Your task to perform on an android device: stop showing notifications on the lock screen Image 0: 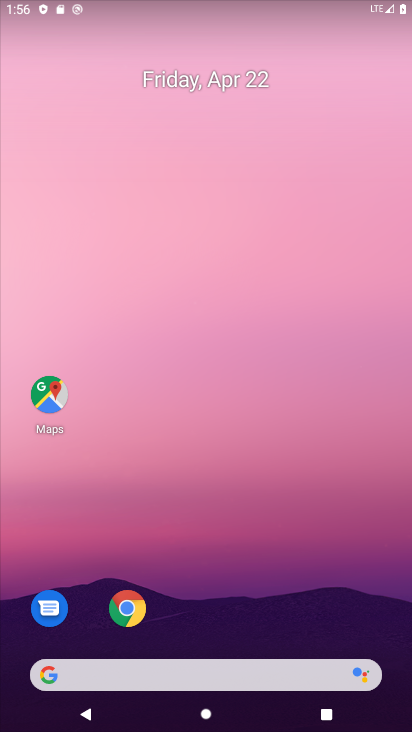
Step 0: drag from (259, 690) to (222, 159)
Your task to perform on an android device: stop showing notifications on the lock screen Image 1: 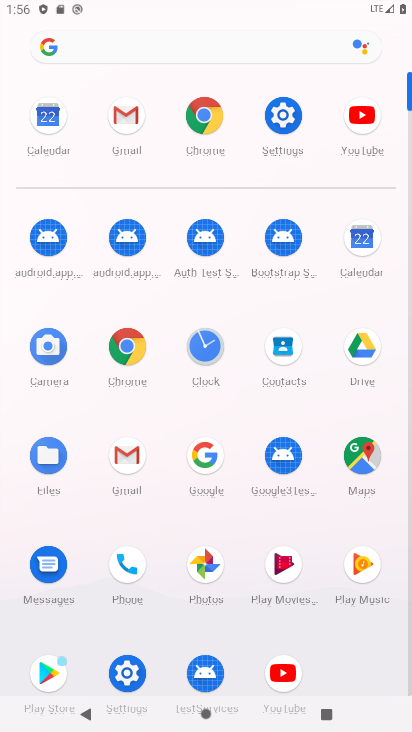
Step 1: click (283, 126)
Your task to perform on an android device: stop showing notifications on the lock screen Image 2: 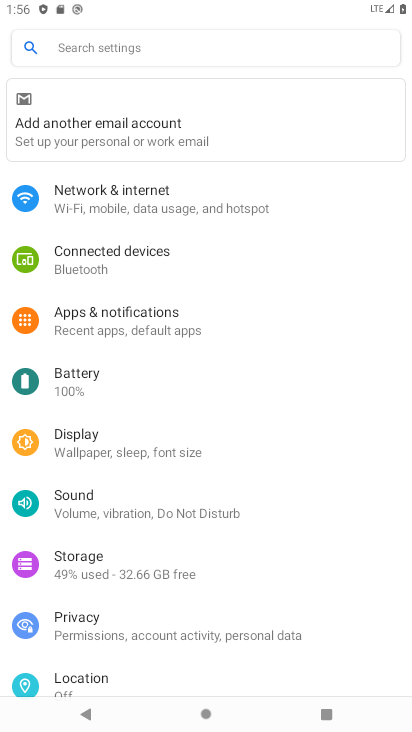
Step 2: click (190, 61)
Your task to perform on an android device: stop showing notifications on the lock screen Image 3: 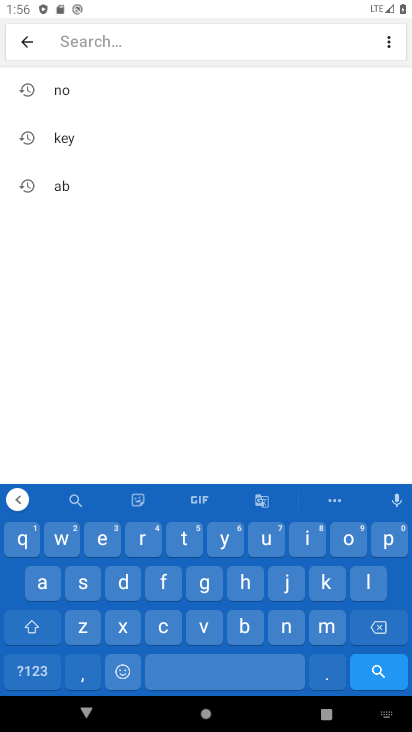
Step 3: click (97, 102)
Your task to perform on an android device: stop showing notifications on the lock screen Image 4: 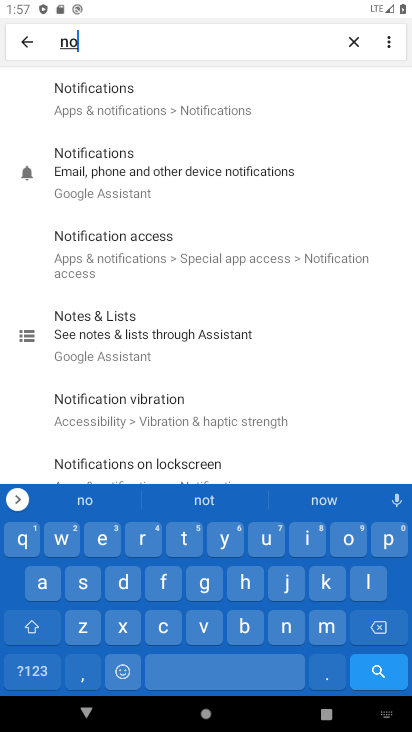
Step 4: click (97, 102)
Your task to perform on an android device: stop showing notifications on the lock screen Image 5: 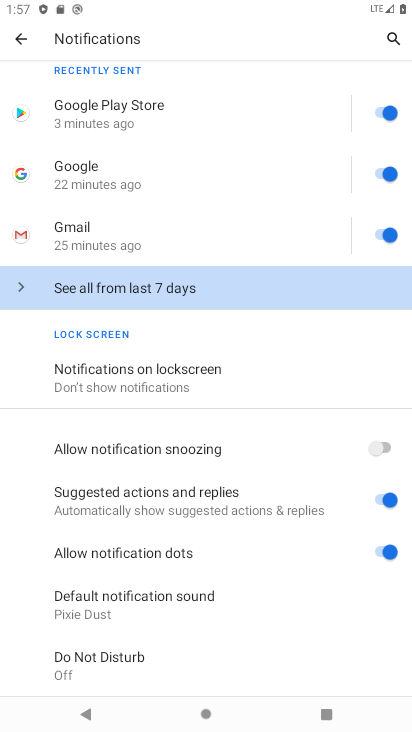
Step 5: click (98, 381)
Your task to perform on an android device: stop showing notifications on the lock screen Image 6: 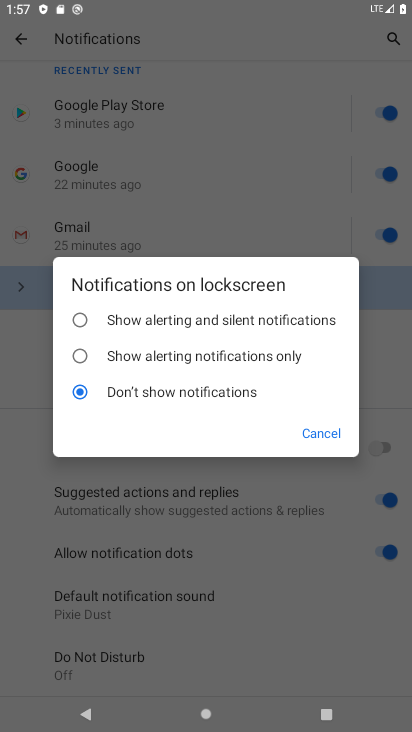
Step 6: task complete